Your task to perform on an android device: change timer sound Image 0: 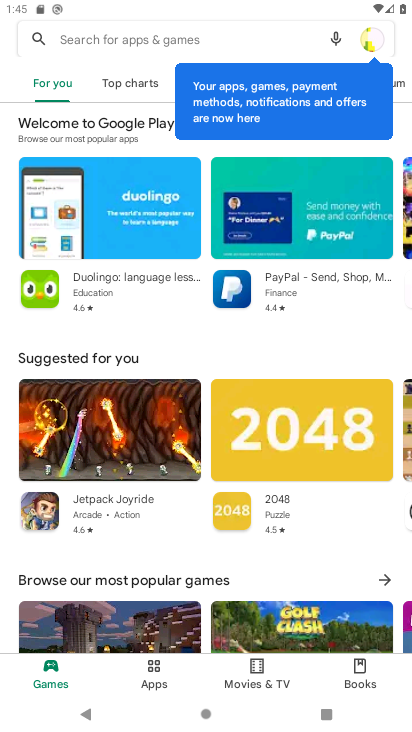
Step 0: press home button
Your task to perform on an android device: change timer sound Image 1: 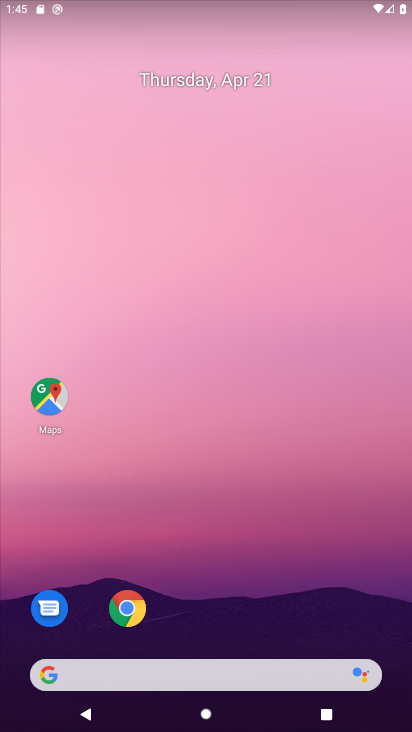
Step 1: drag from (199, 513) to (272, 0)
Your task to perform on an android device: change timer sound Image 2: 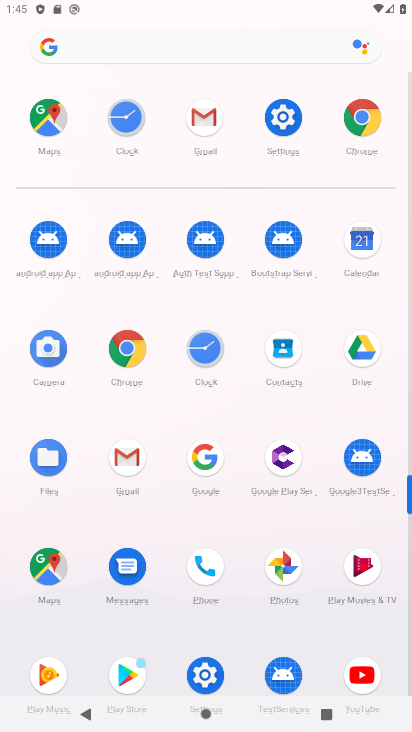
Step 2: click (138, 115)
Your task to perform on an android device: change timer sound Image 3: 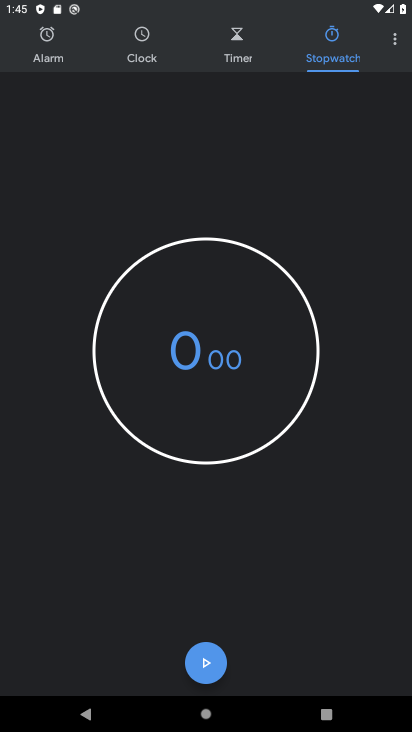
Step 3: click (389, 40)
Your task to perform on an android device: change timer sound Image 4: 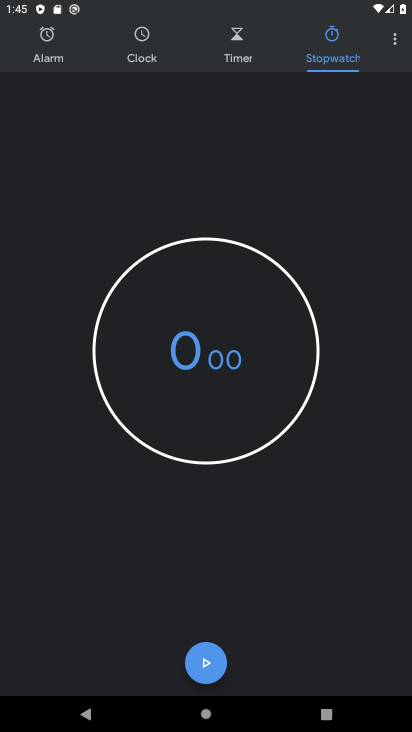
Step 4: click (396, 33)
Your task to perform on an android device: change timer sound Image 5: 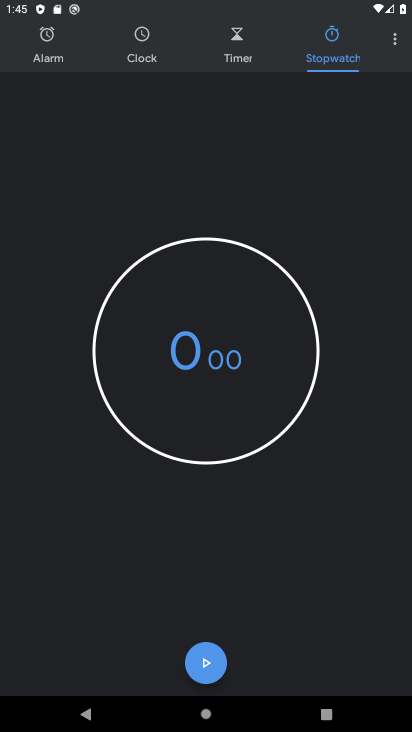
Step 5: click (350, 77)
Your task to perform on an android device: change timer sound Image 6: 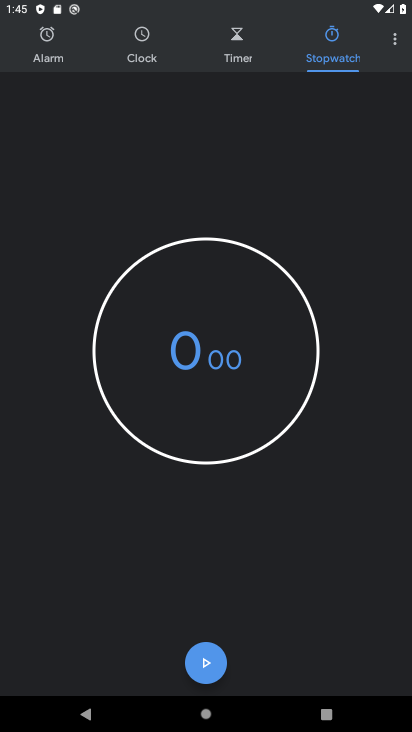
Step 6: click (395, 57)
Your task to perform on an android device: change timer sound Image 7: 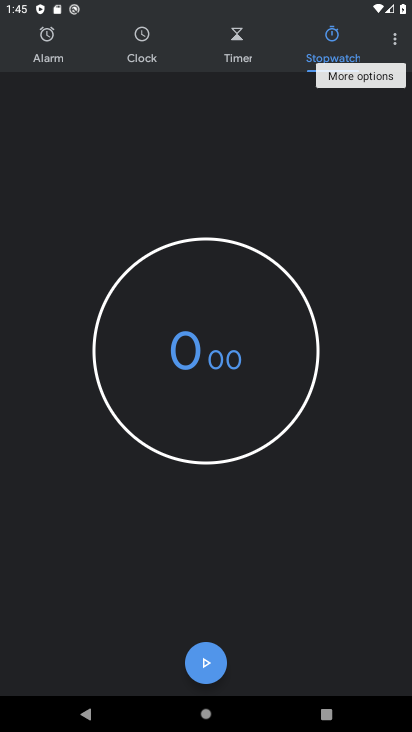
Step 7: click (395, 57)
Your task to perform on an android device: change timer sound Image 8: 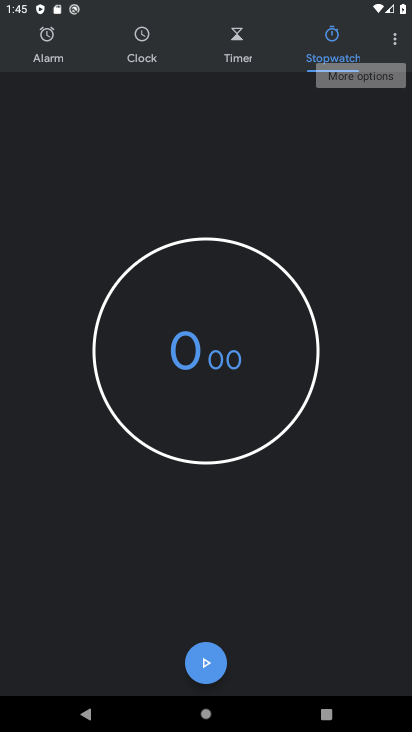
Step 8: click (396, 44)
Your task to perform on an android device: change timer sound Image 9: 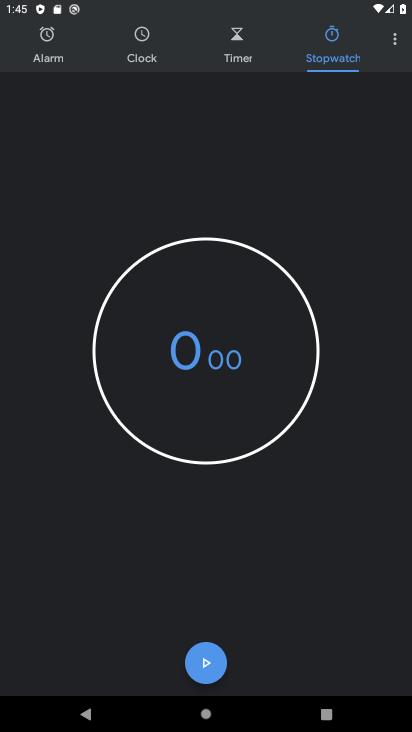
Step 9: click (401, 36)
Your task to perform on an android device: change timer sound Image 10: 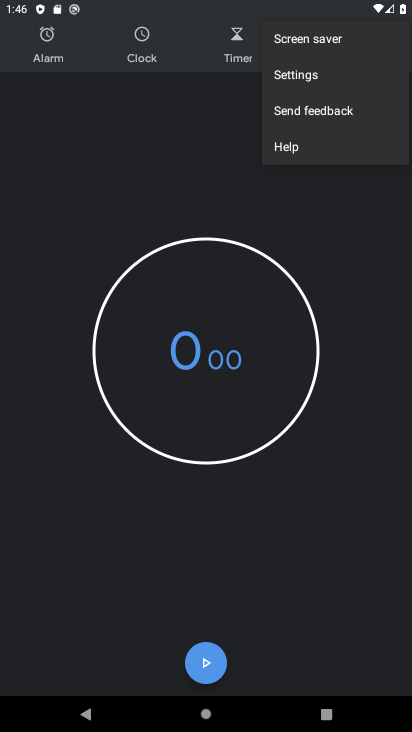
Step 10: click (329, 72)
Your task to perform on an android device: change timer sound Image 11: 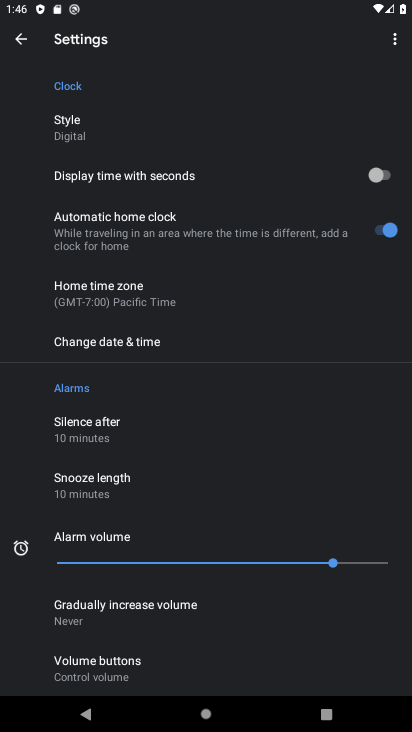
Step 11: drag from (92, 486) to (71, 277)
Your task to perform on an android device: change timer sound Image 12: 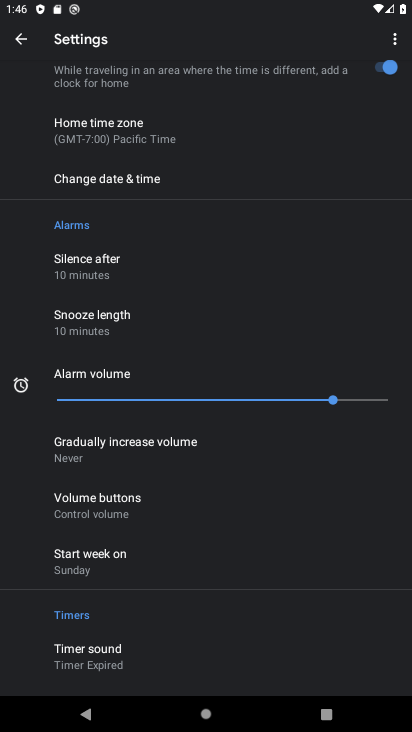
Step 12: drag from (177, 495) to (262, 221)
Your task to perform on an android device: change timer sound Image 13: 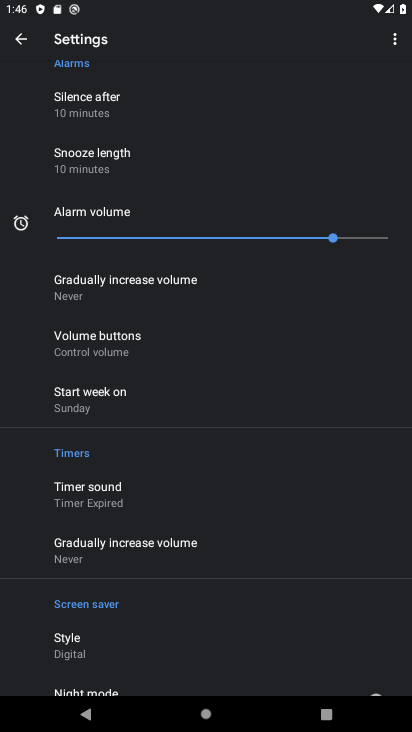
Step 13: click (113, 486)
Your task to perform on an android device: change timer sound Image 14: 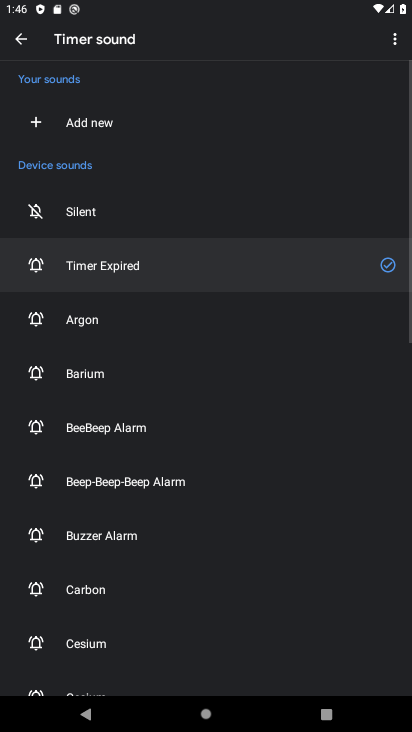
Step 14: click (81, 379)
Your task to perform on an android device: change timer sound Image 15: 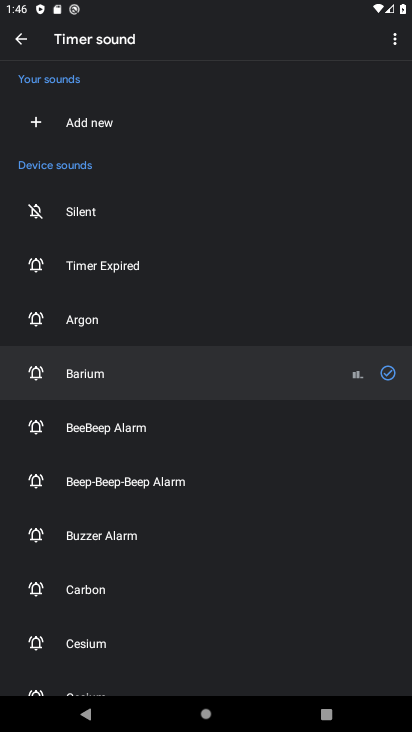
Step 15: task complete